Your task to perform on an android device: turn off location Image 0: 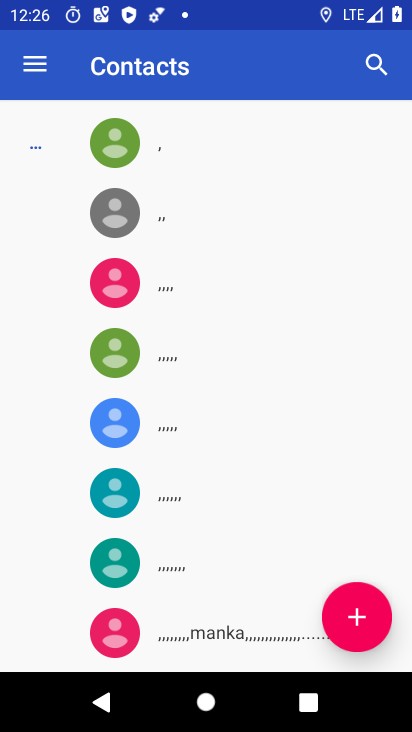
Step 0: press home button
Your task to perform on an android device: turn off location Image 1: 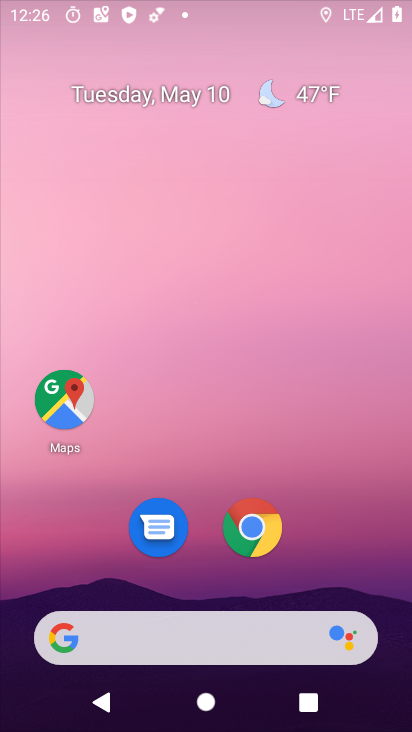
Step 1: drag from (381, 531) to (376, 133)
Your task to perform on an android device: turn off location Image 2: 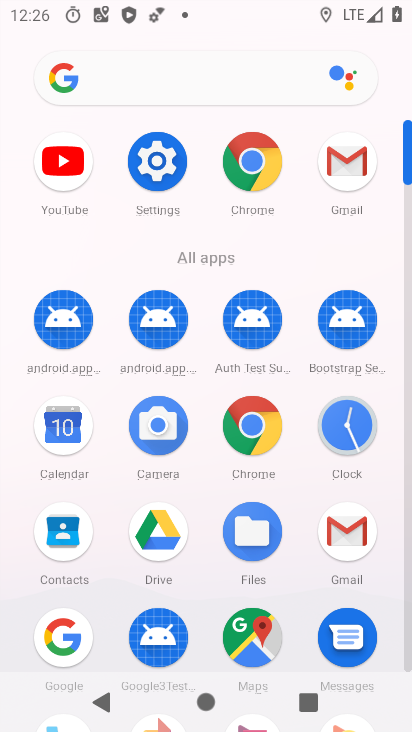
Step 2: click (178, 181)
Your task to perform on an android device: turn off location Image 3: 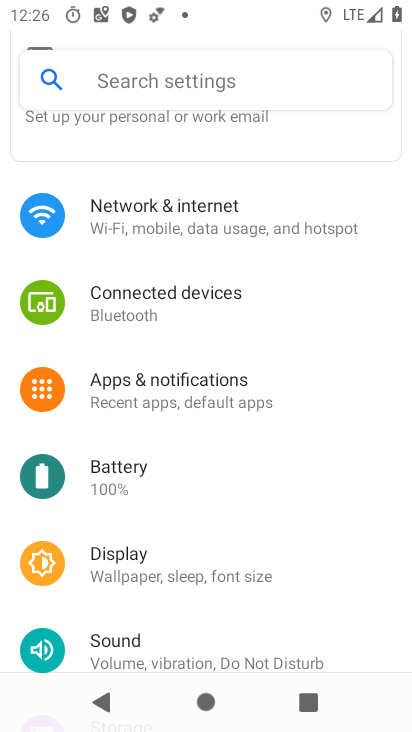
Step 3: drag from (214, 617) to (214, 240)
Your task to perform on an android device: turn off location Image 4: 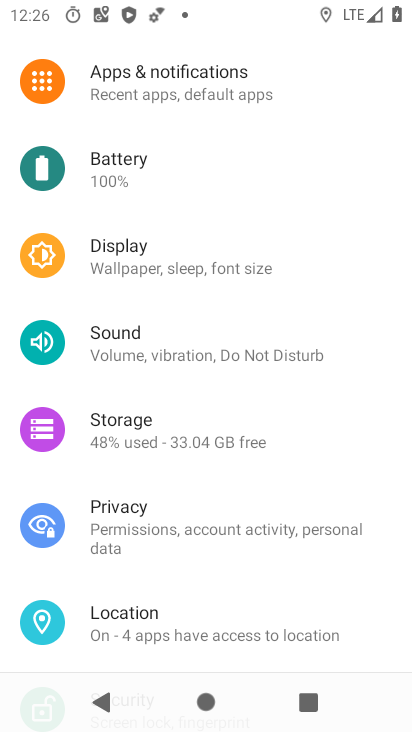
Step 4: click (183, 630)
Your task to perform on an android device: turn off location Image 5: 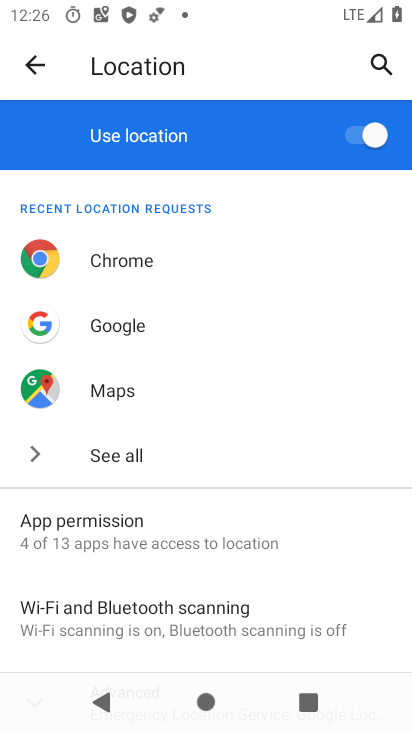
Step 5: drag from (352, 617) to (349, 348)
Your task to perform on an android device: turn off location Image 6: 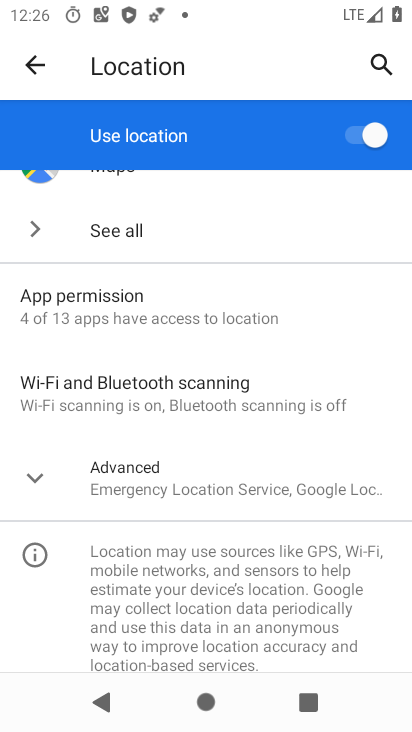
Step 6: click (353, 132)
Your task to perform on an android device: turn off location Image 7: 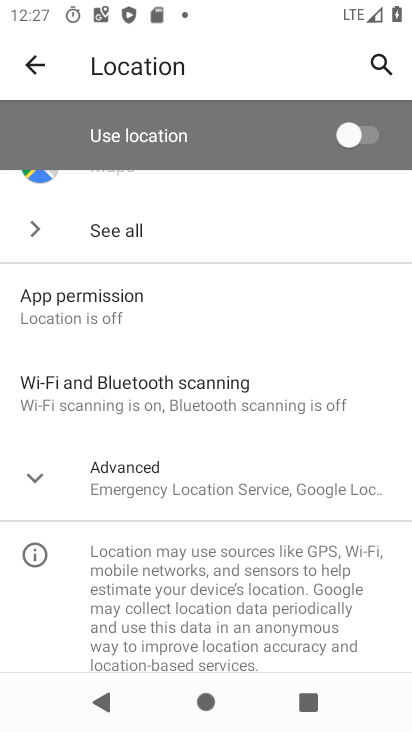
Step 7: task complete